Your task to perform on an android device: empty trash in the gmail app Image 0: 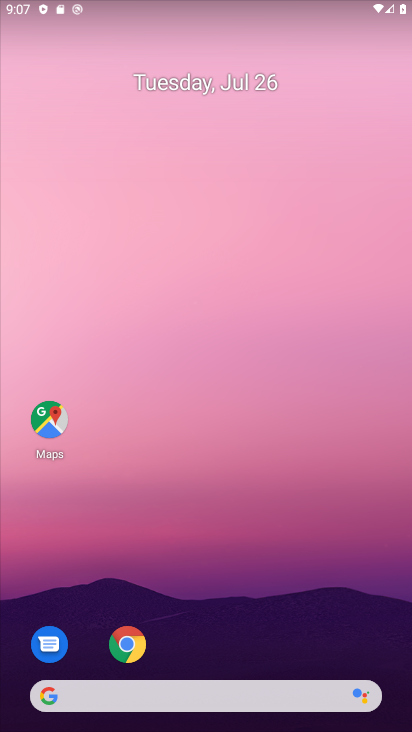
Step 0: drag from (205, 668) to (143, 15)
Your task to perform on an android device: empty trash in the gmail app Image 1: 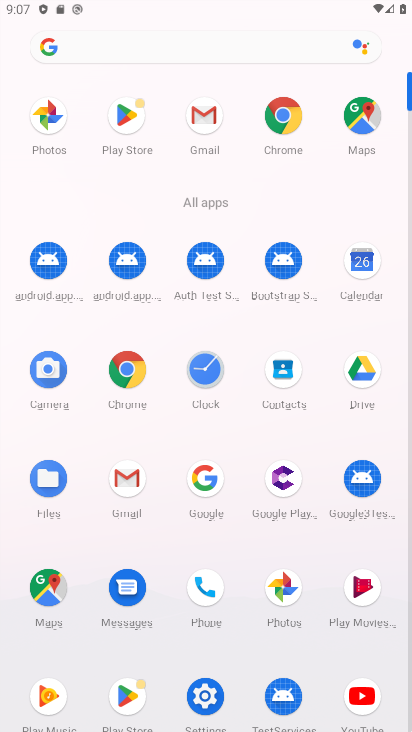
Step 1: click (130, 503)
Your task to perform on an android device: empty trash in the gmail app Image 2: 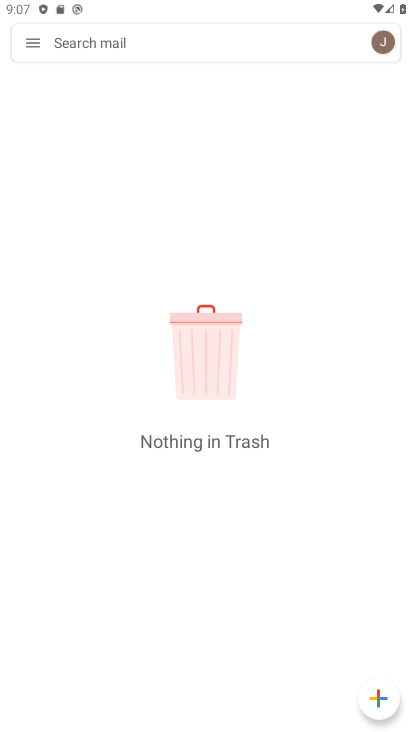
Step 2: task complete